Your task to perform on an android device: stop showing notifications on the lock screen Image 0: 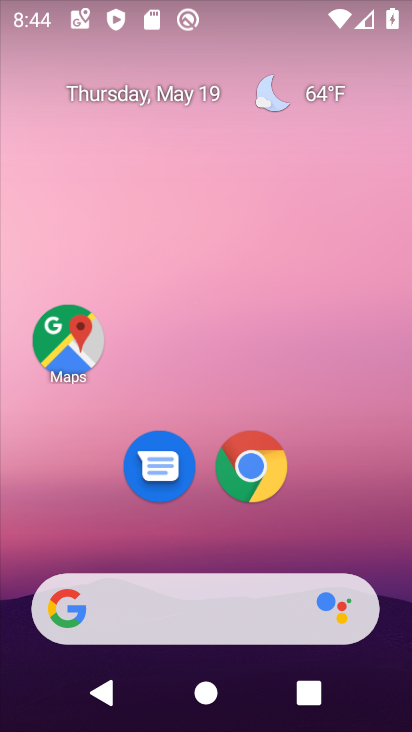
Step 0: drag from (395, 617) to (328, 129)
Your task to perform on an android device: stop showing notifications on the lock screen Image 1: 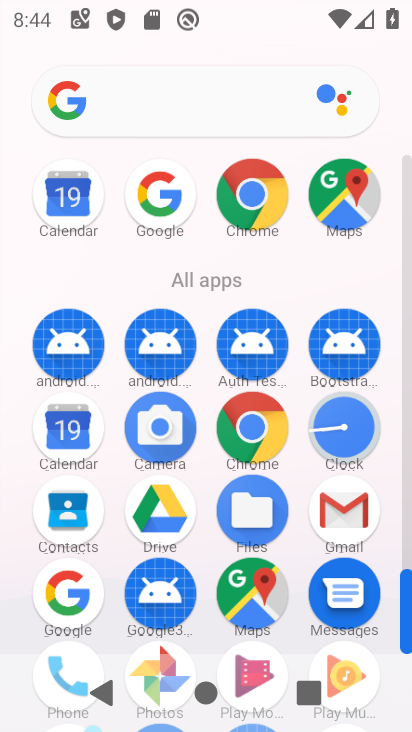
Step 1: drag from (291, 641) to (285, 228)
Your task to perform on an android device: stop showing notifications on the lock screen Image 2: 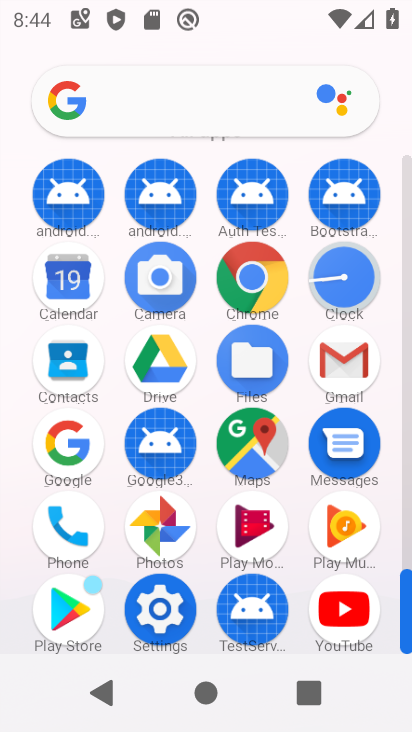
Step 2: click (155, 596)
Your task to perform on an android device: stop showing notifications on the lock screen Image 3: 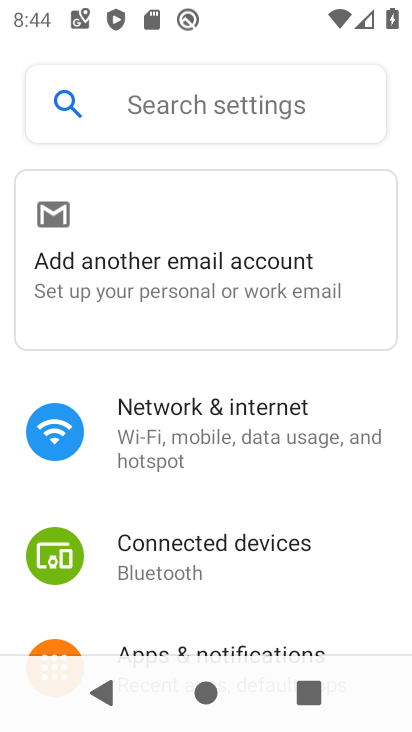
Step 3: drag from (155, 596) to (178, 317)
Your task to perform on an android device: stop showing notifications on the lock screen Image 4: 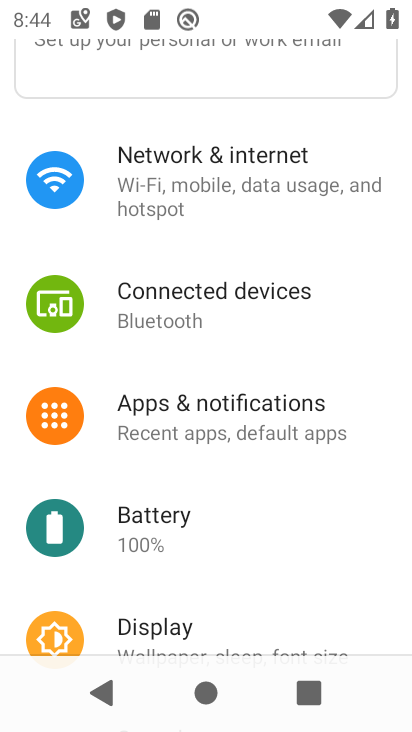
Step 4: click (204, 407)
Your task to perform on an android device: stop showing notifications on the lock screen Image 5: 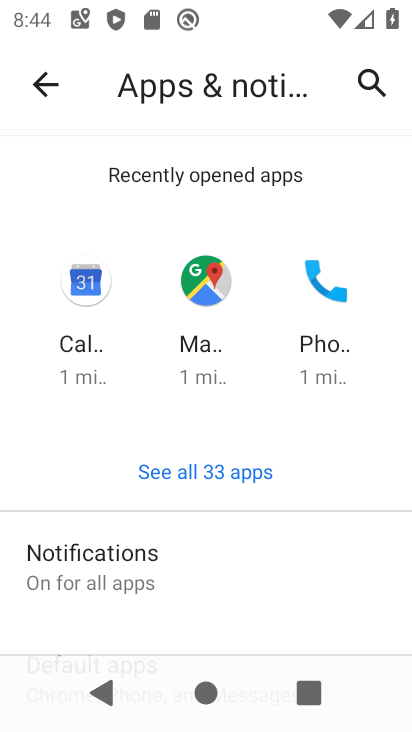
Step 5: click (156, 586)
Your task to perform on an android device: stop showing notifications on the lock screen Image 6: 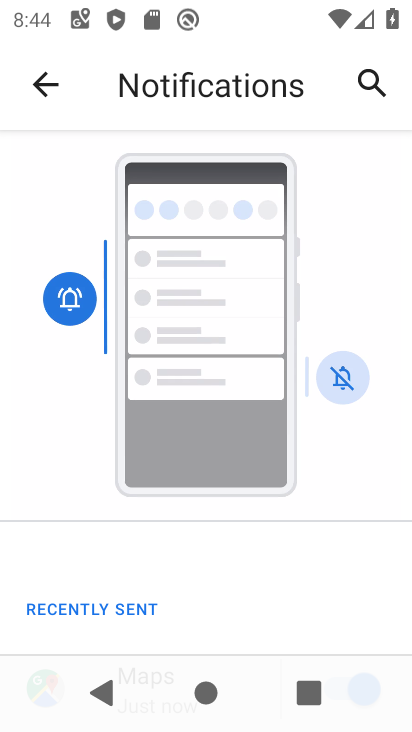
Step 6: drag from (193, 615) to (246, 108)
Your task to perform on an android device: stop showing notifications on the lock screen Image 7: 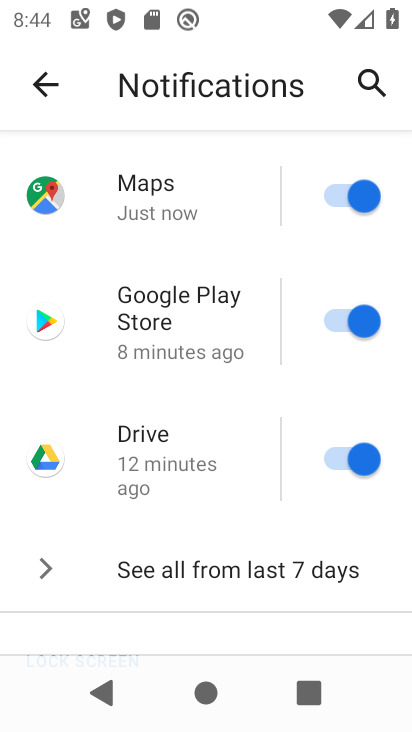
Step 7: drag from (202, 567) to (224, 213)
Your task to perform on an android device: stop showing notifications on the lock screen Image 8: 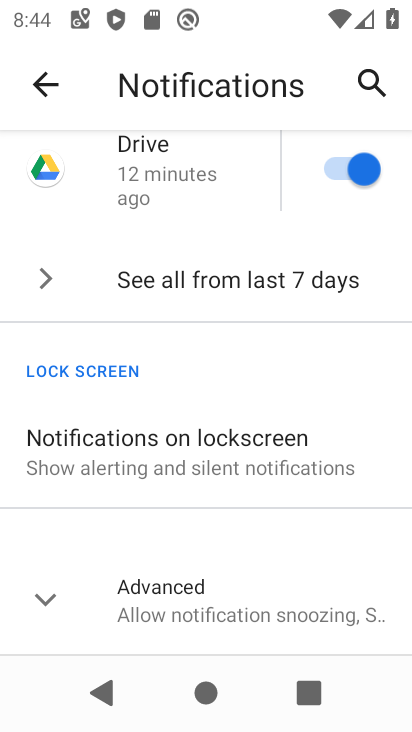
Step 8: click (235, 493)
Your task to perform on an android device: stop showing notifications on the lock screen Image 9: 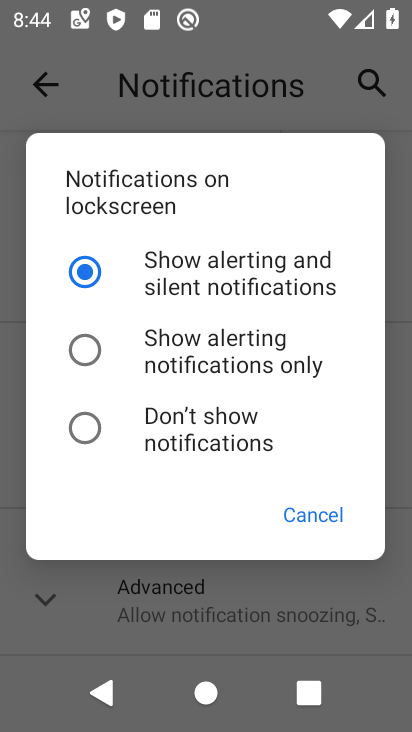
Step 9: click (148, 437)
Your task to perform on an android device: stop showing notifications on the lock screen Image 10: 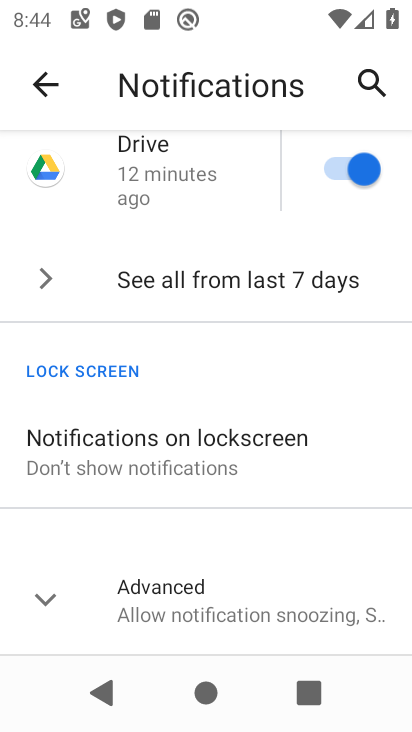
Step 10: task complete